Your task to perform on an android device: turn on improve location accuracy Image 0: 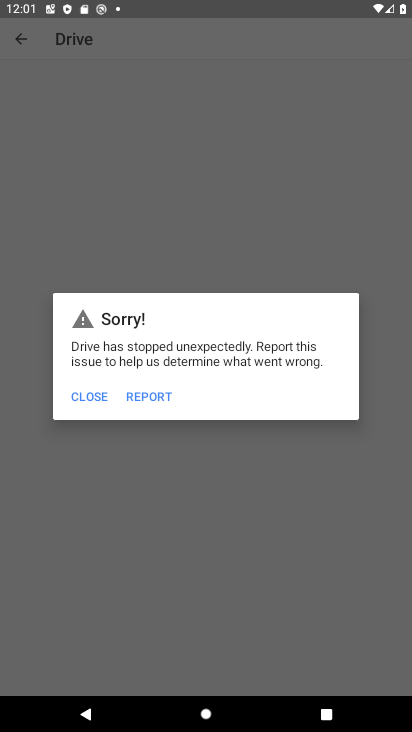
Step 0: press home button
Your task to perform on an android device: turn on improve location accuracy Image 1: 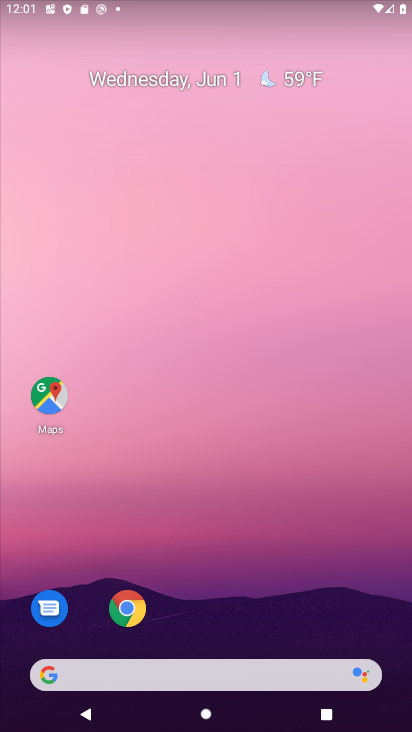
Step 1: drag from (200, 552) to (275, 55)
Your task to perform on an android device: turn on improve location accuracy Image 2: 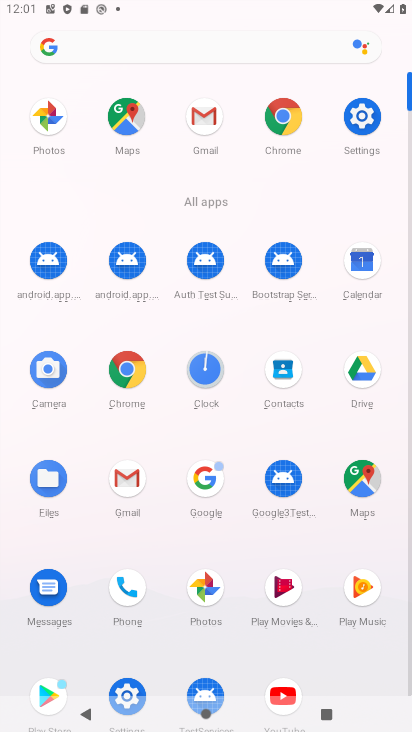
Step 2: click (360, 142)
Your task to perform on an android device: turn on improve location accuracy Image 3: 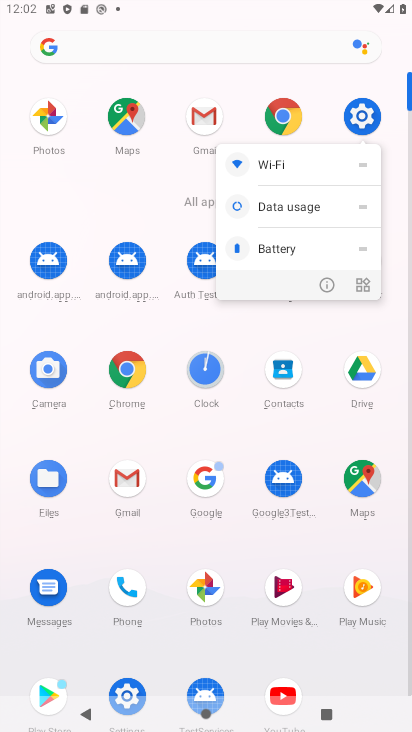
Step 3: click (366, 118)
Your task to perform on an android device: turn on improve location accuracy Image 4: 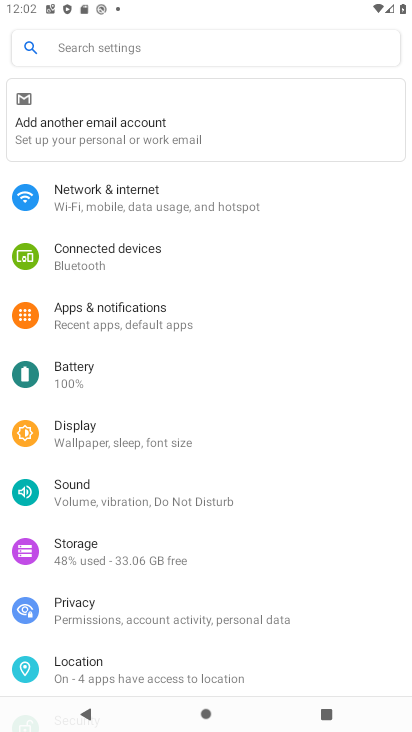
Step 4: drag from (159, 595) to (158, 471)
Your task to perform on an android device: turn on improve location accuracy Image 5: 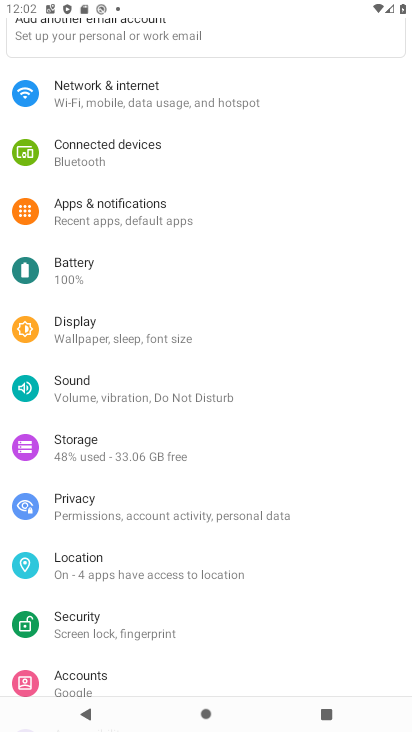
Step 5: click (110, 645)
Your task to perform on an android device: turn on improve location accuracy Image 6: 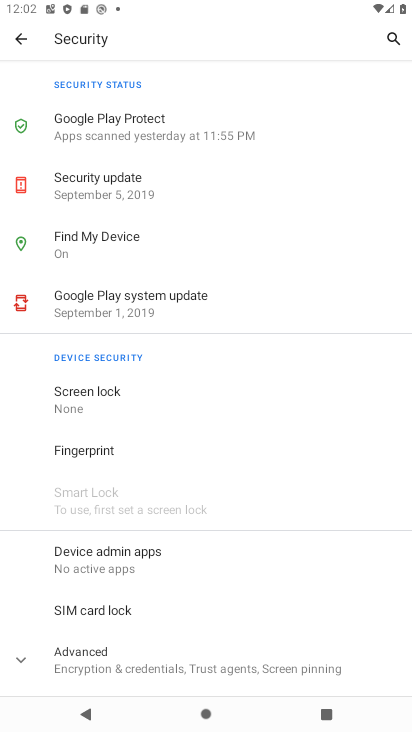
Step 6: click (30, 43)
Your task to perform on an android device: turn on improve location accuracy Image 7: 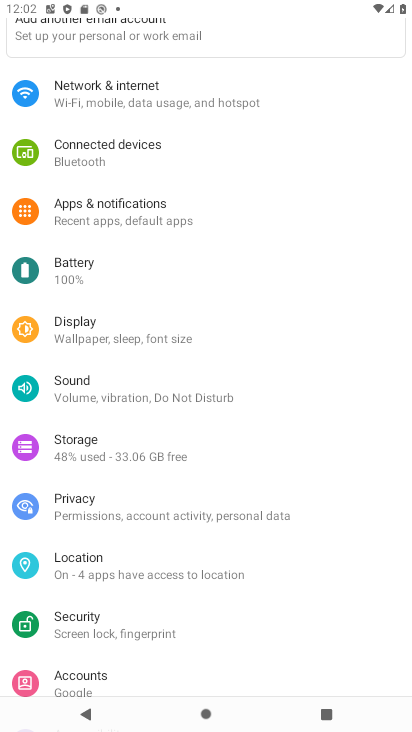
Step 7: click (109, 558)
Your task to perform on an android device: turn on improve location accuracy Image 8: 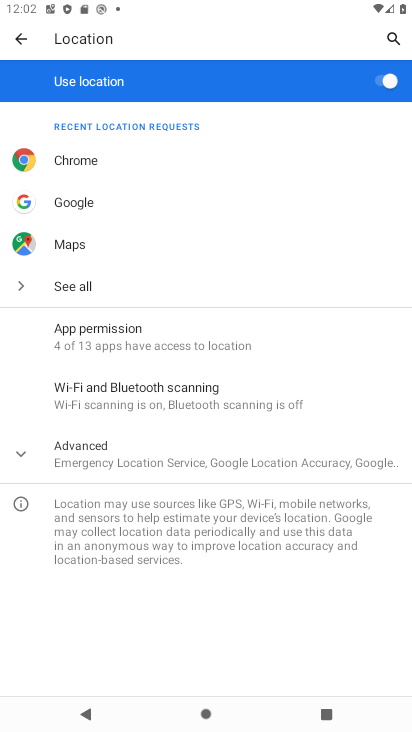
Step 8: click (84, 458)
Your task to perform on an android device: turn on improve location accuracy Image 9: 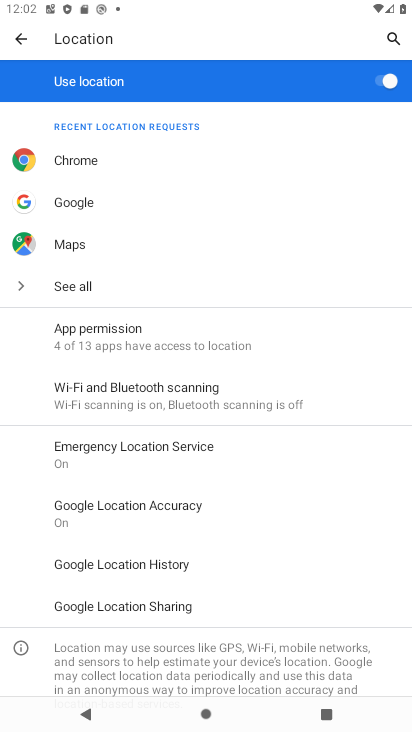
Step 9: click (171, 501)
Your task to perform on an android device: turn on improve location accuracy Image 10: 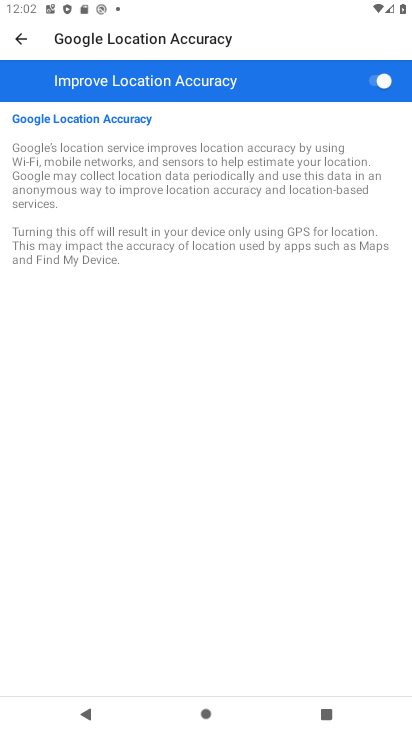
Step 10: task complete